Your task to perform on an android device: Go to Google Image 0: 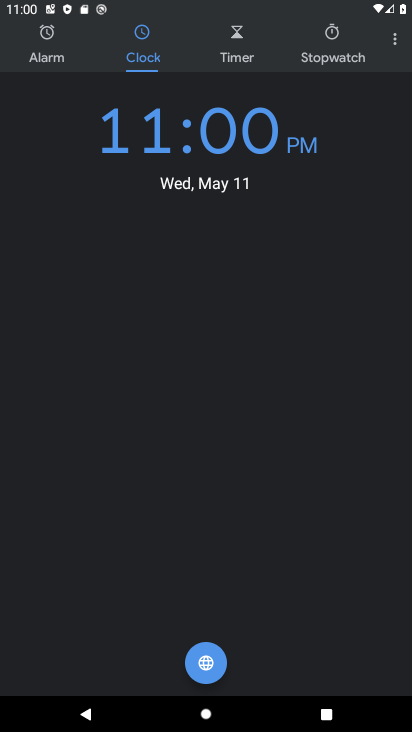
Step 0: press home button
Your task to perform on an android device: Go to Google Image 1: 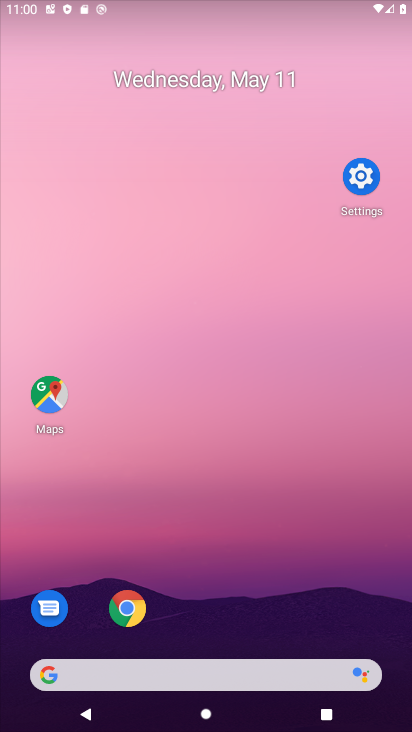
Step 1: drag from (262, 563) to (270, 44)
Your task to perform on an android device: Go to Google Image 2: 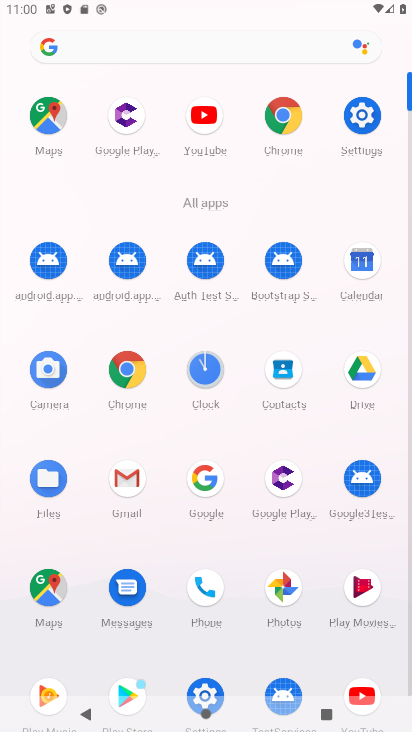
Step 2: click (202, 472)
Your task to perform on an android device: Go to Google Image 3: 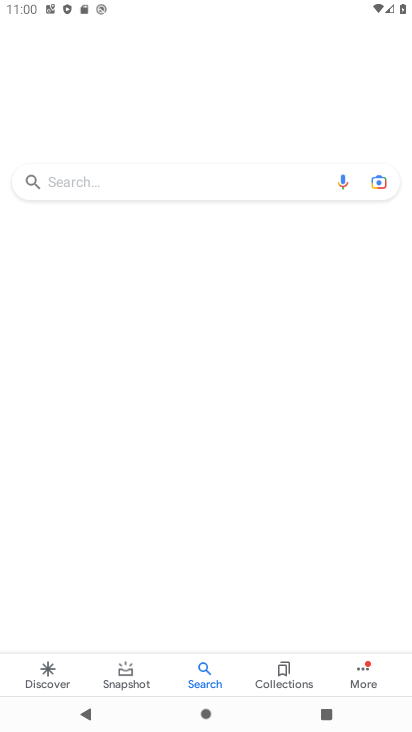
Step 3: click (169, 471)
Your task to perform on an android device: Go to Google Image 4: 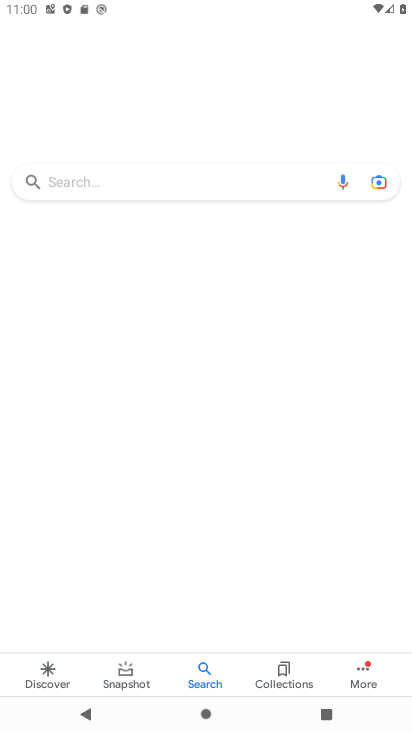
Step 4: click (179, 462)
Your task to perform on an android device: Go to Google Image 5: 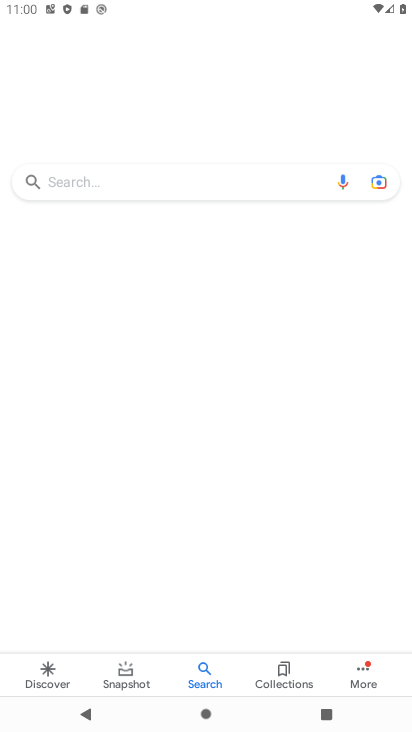
Step 5: task complete